Your task to perform on an android device: remove spam from my inbox in the gmail app Image 0: 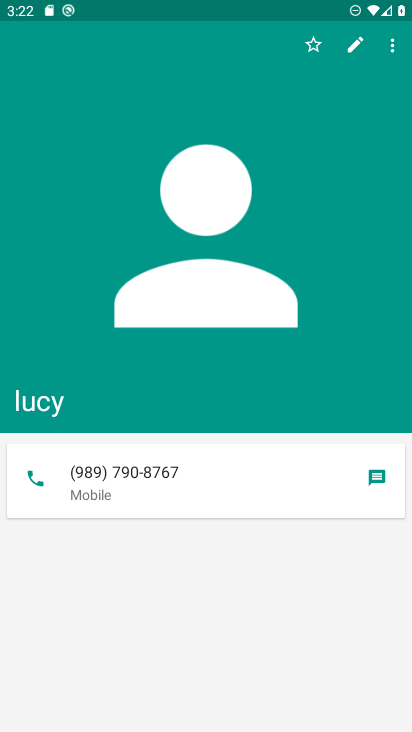
Step 0: press home button
Your task to perform on an android device: remove spam from my inbox in the gmail app Image 1: 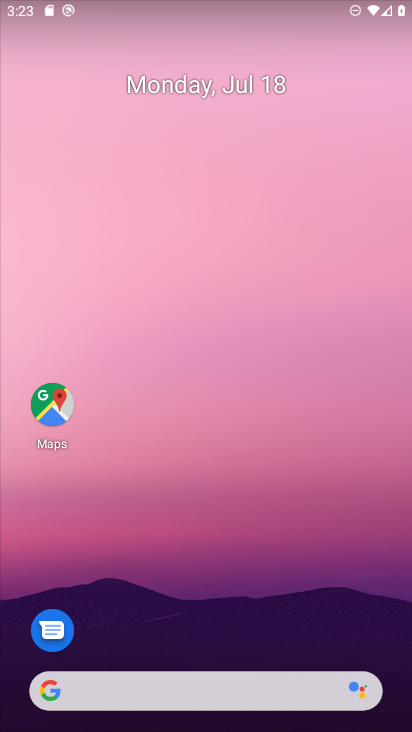
Step 1: drag from (166, 697) to (189, 52)
Your task to perform on an android device: remove spam from my inbox in the gmail app Image 2: 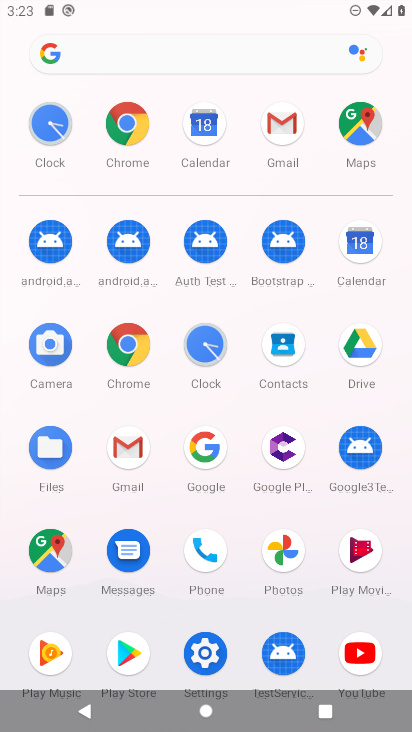
Step 2: click (122, 454)
Your task to perform on an android device: remove spam from my inbox in the gmail app Image 3: 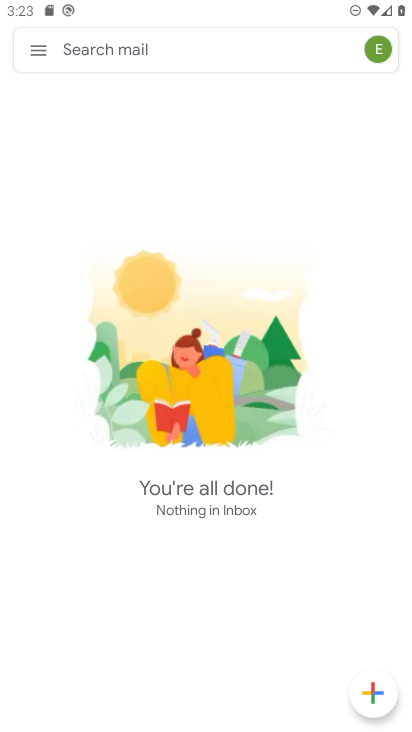
Step 3: click (29, 49)
Your task to perform on an android device: remove spam from my inbox in the gmail app Image 4: 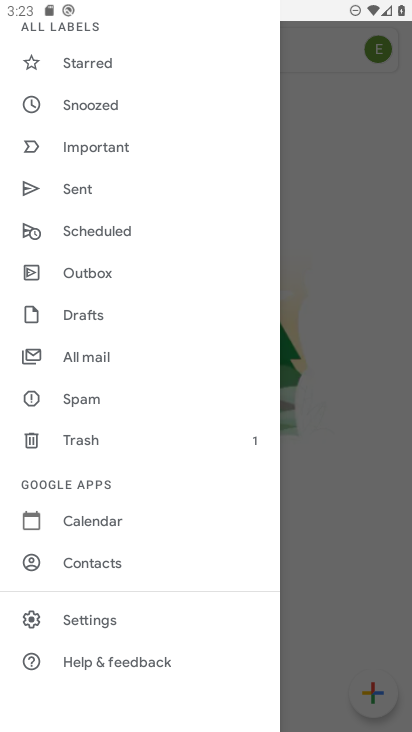
Step 4: click (111, 394)
Your task to perform on an android device: remove spam from my inbox in the gmail app Image 5: 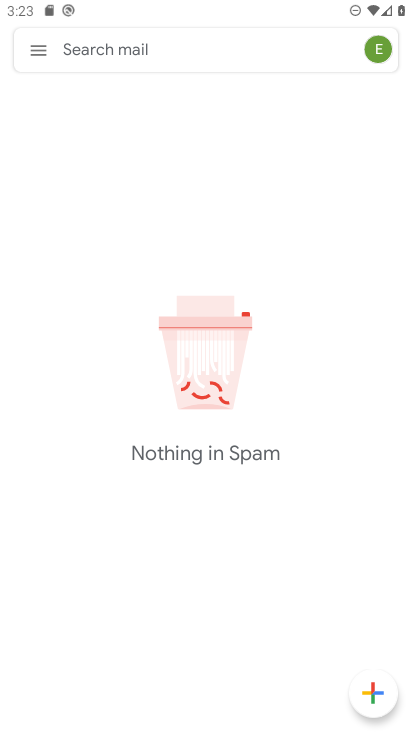
Step 5: task complete